Your task to perform on an android device: change keyboard looks Image 0: 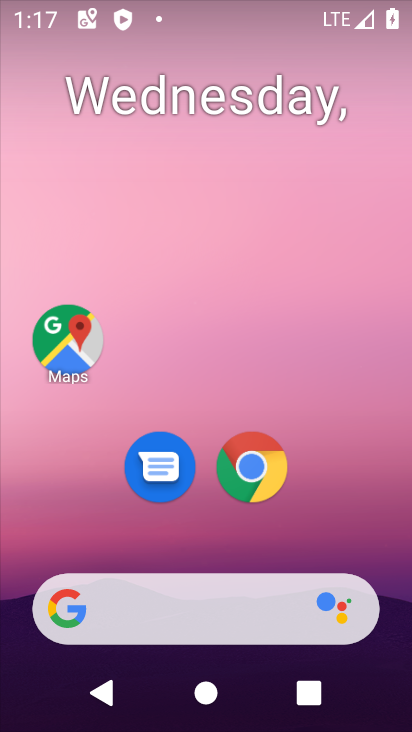
Step 0: drag from (171, 540) to (165, 89)
Your task to perform on an android device: change keyboard looks Image 1: 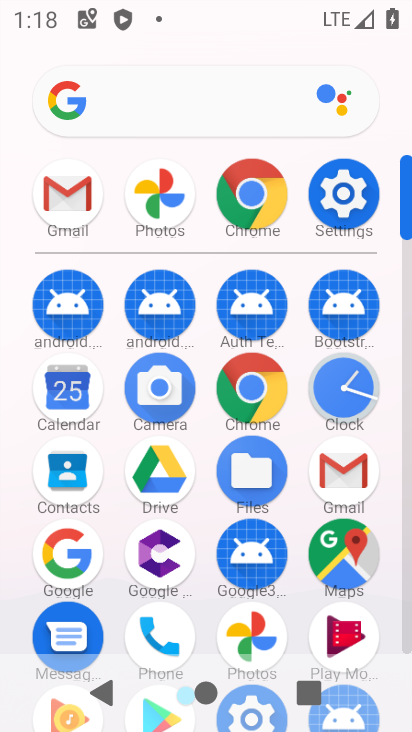
Step 1: click (346, 194)
Your task to perform on an android device: change keyboard looks Image 2: 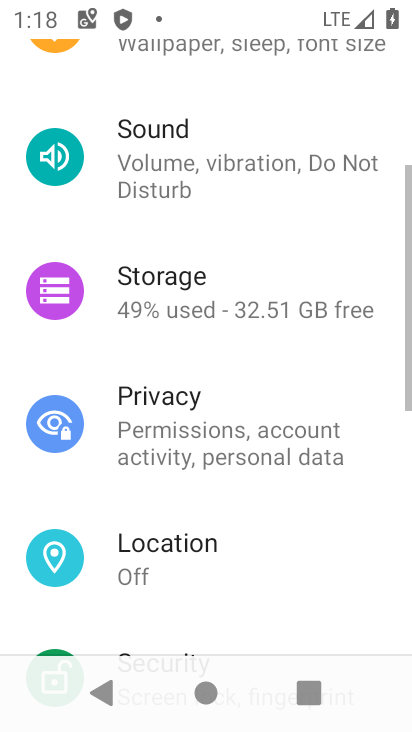
Step 2: drag from (234, 538) to (285, 127)
Your task to perform on an android device: change keyboard looks Image 3: 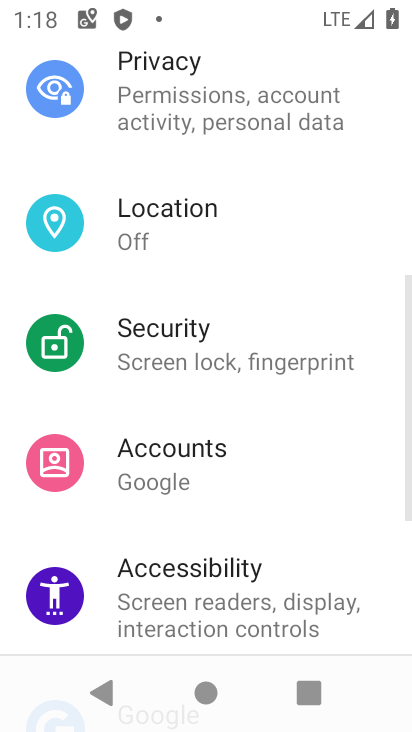
Step 3: drag from (183, 562) to (193, 254)
Your task to perform on an android device: change keyboard looks Image 4: 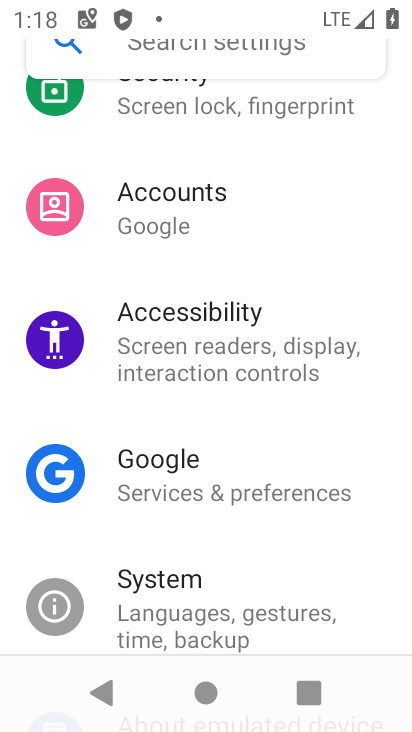
Step 4: click (159, 597)
Your task to perform on an android device: change keyboard looks Image 5: 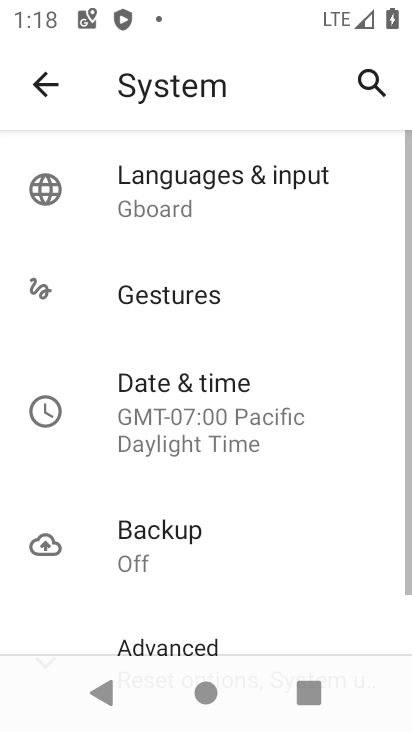
Step 5: click (175, 187)
Your task to perform on an android device: change keyboard looks Image 6: 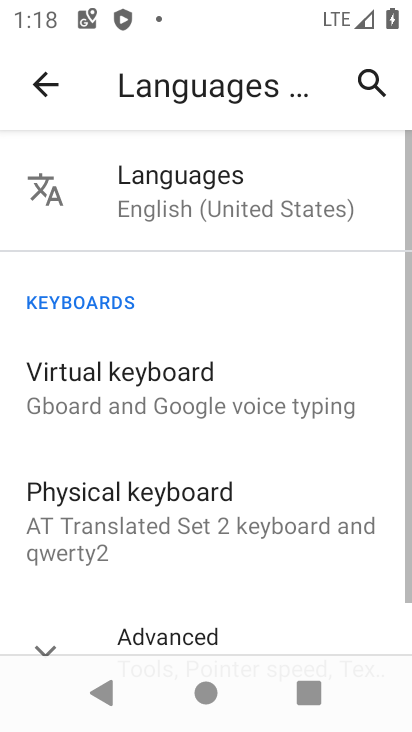
Step 6: click (165, 390)
Your task to perform on an android device: change keyboard looks Image 7: 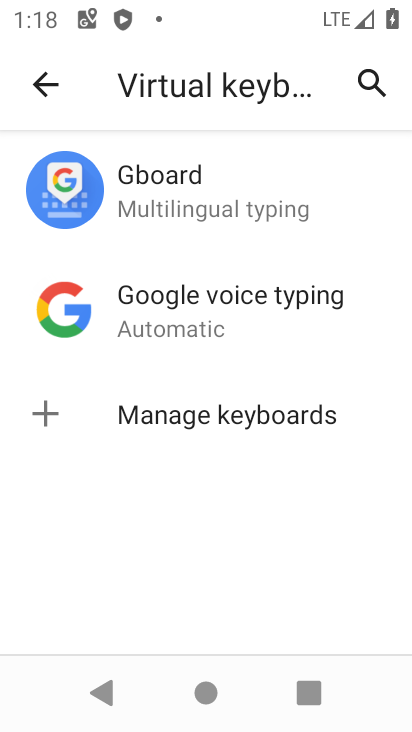
Step 7: click (229, 205)
Your task to perform on an android device: change keyboard looks Image 8: 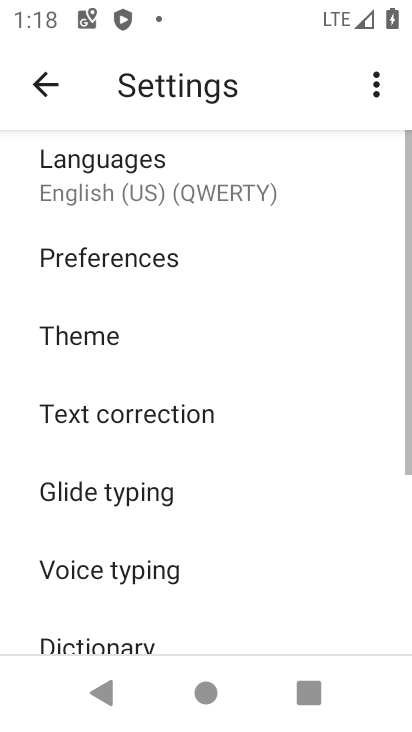
Step 8: click (115, 344)
Your task to perform on an android device: change keyboard looks Image 9: 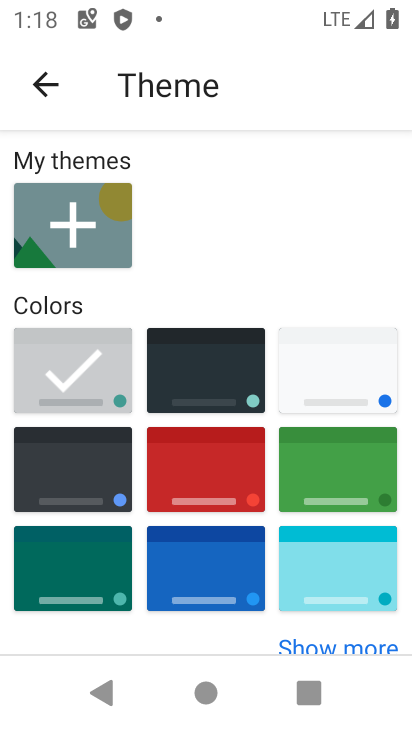
Step 9: click (224, 402)
Your task to perform on an android device: change keyboard looks Image 10: 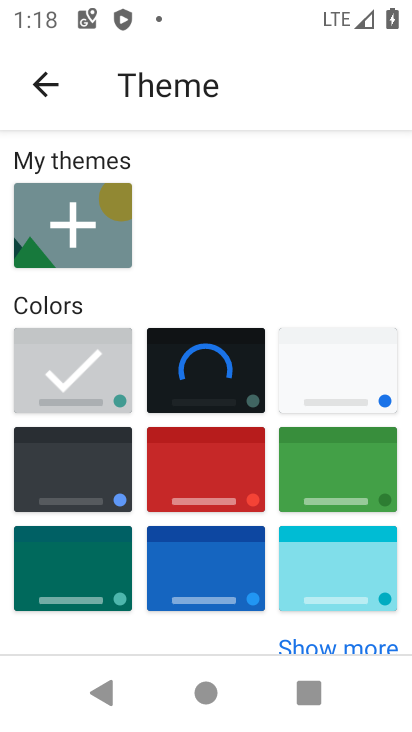
Step 10: click (257, 558)
Your task to perform on an android device: change keyboard looks Image 11: 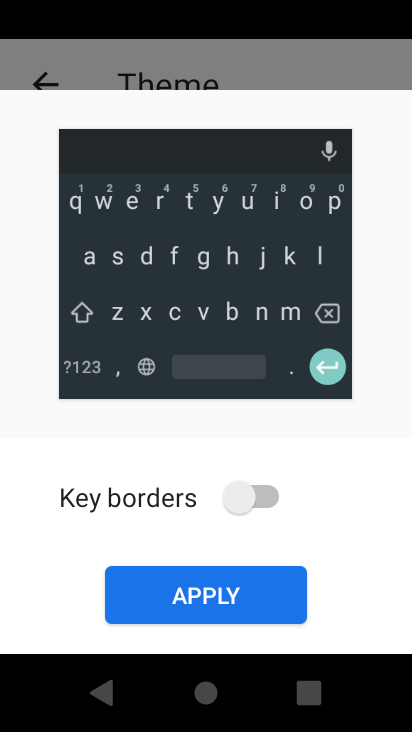
Step 11: click (254, 596)
Your task to perform on an android device: change keyboard looks Image 12: 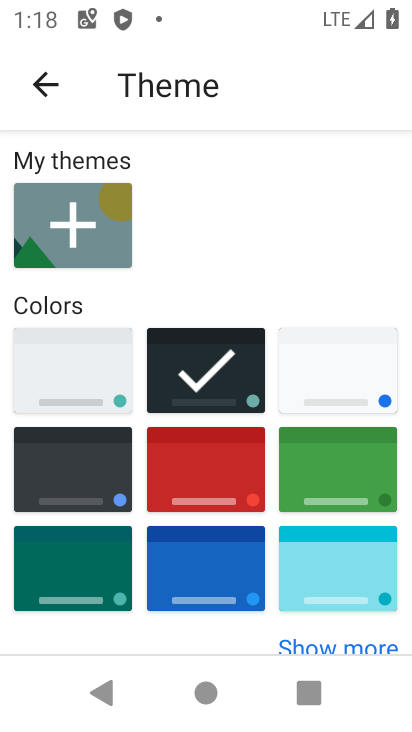
Step 12: task complete